Your task to perform on an android device: Clear the cart on ebay.com. Search for "panasonic triple a" on ebay.com, select the first entry, add it to the cart, then select checkout. Image 0: 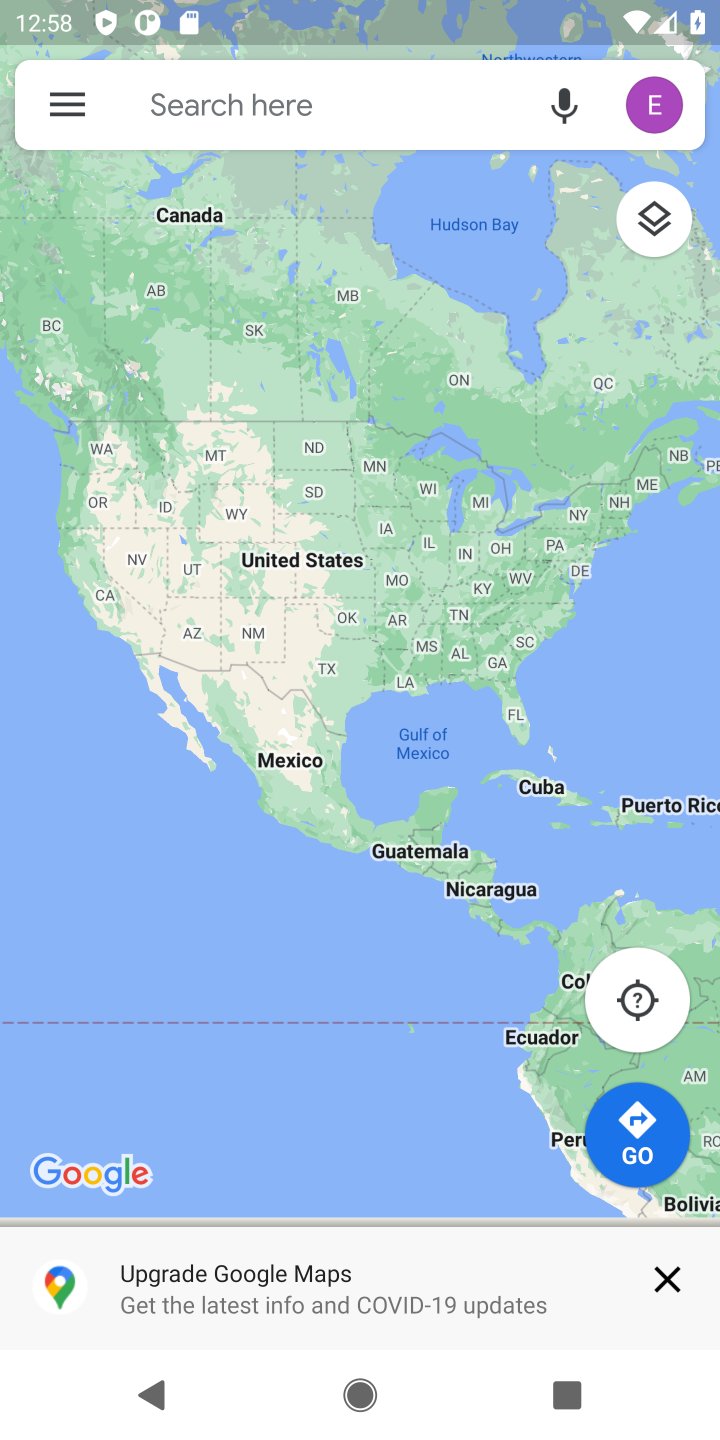
Step 0: press home button
Your task to perform on an android device: Clear the cart on ebay.com. Search for "panasonic triple a" on ebay.com, select the first entry, add it to the cart, then select checkout. Image 1: 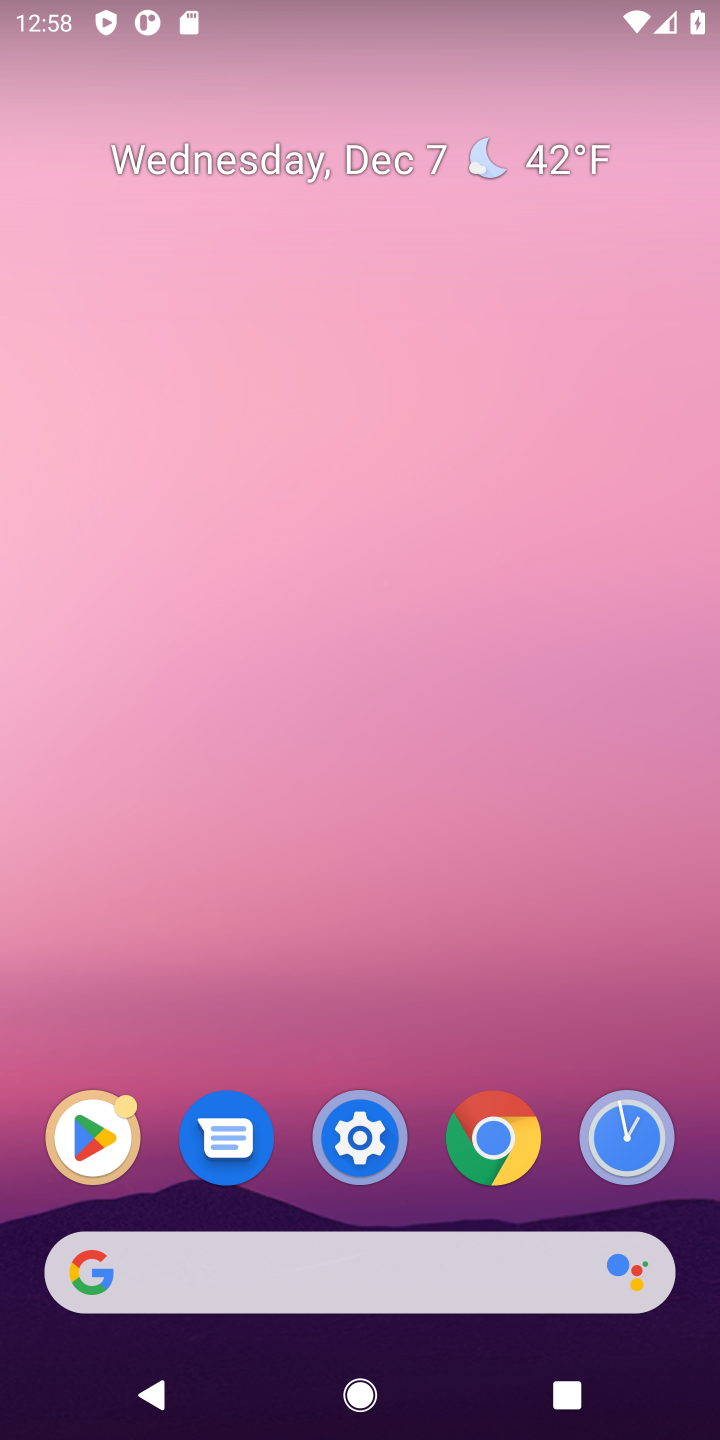
Step 1: click (283, 1278)
Your task to perform on an android device: Clear the cart on ebay.com. Search for "panasonic triple a" on ebay.com, select the first entry, add it to the cart, then select checkout. Image 2: 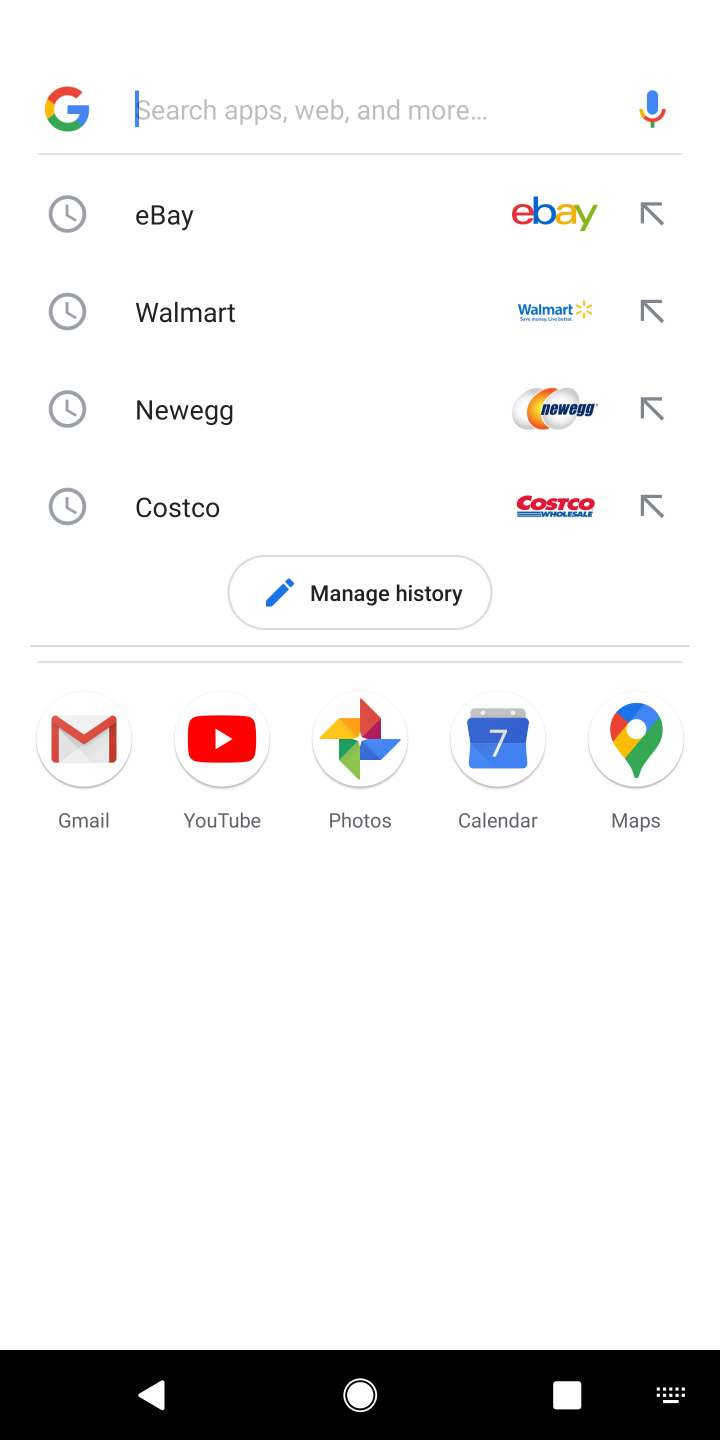
Step 2: click (227, 213)
Your task to perform on an android device: Clear the cart on ebay.com. Search for "panasonic triple a" on ebay.com, select the first entry, add it to the cart, then select checkout. Image 3: 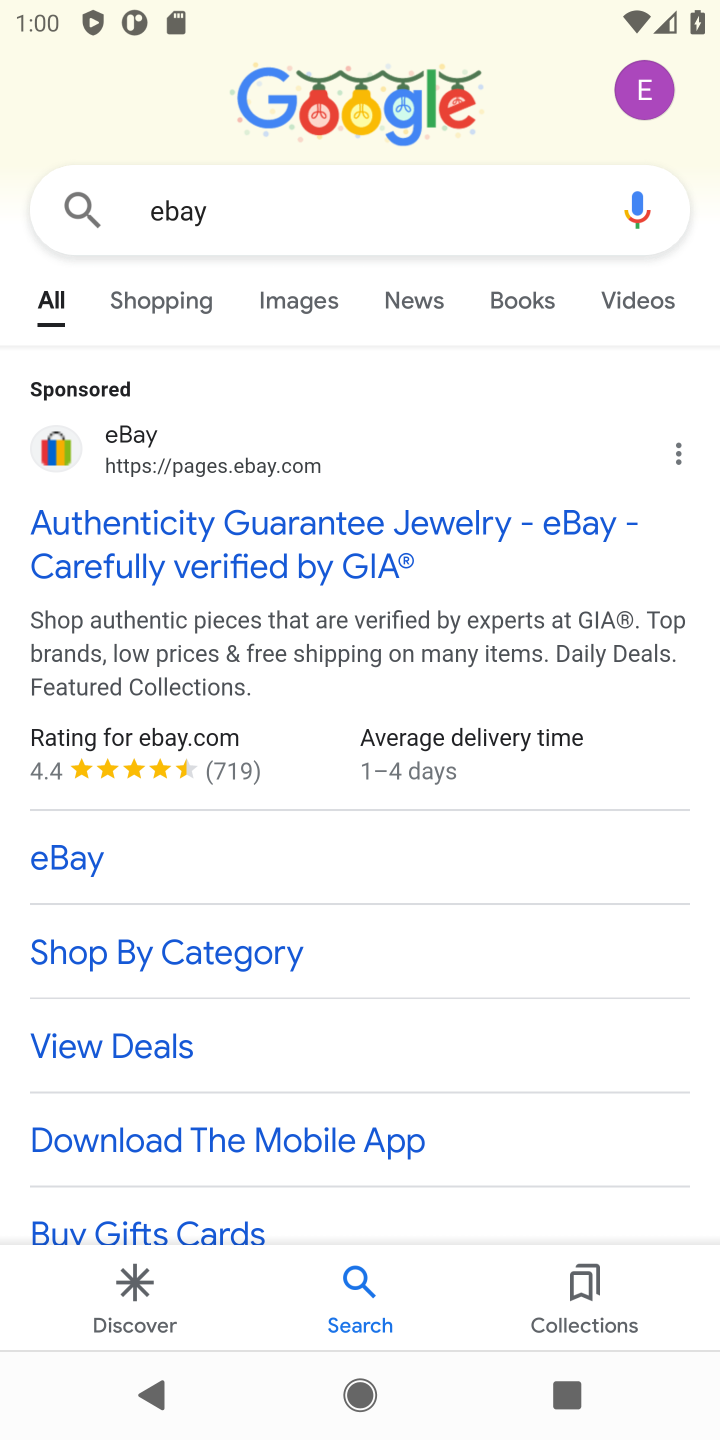
Step 3: click (163, 600)
Your task to perform on an android device: Clear the cart on ebay.com. Search for "panasonic triple a" on ebay.com, select the first entry, add it to the cart, then select checkout. Image 4: 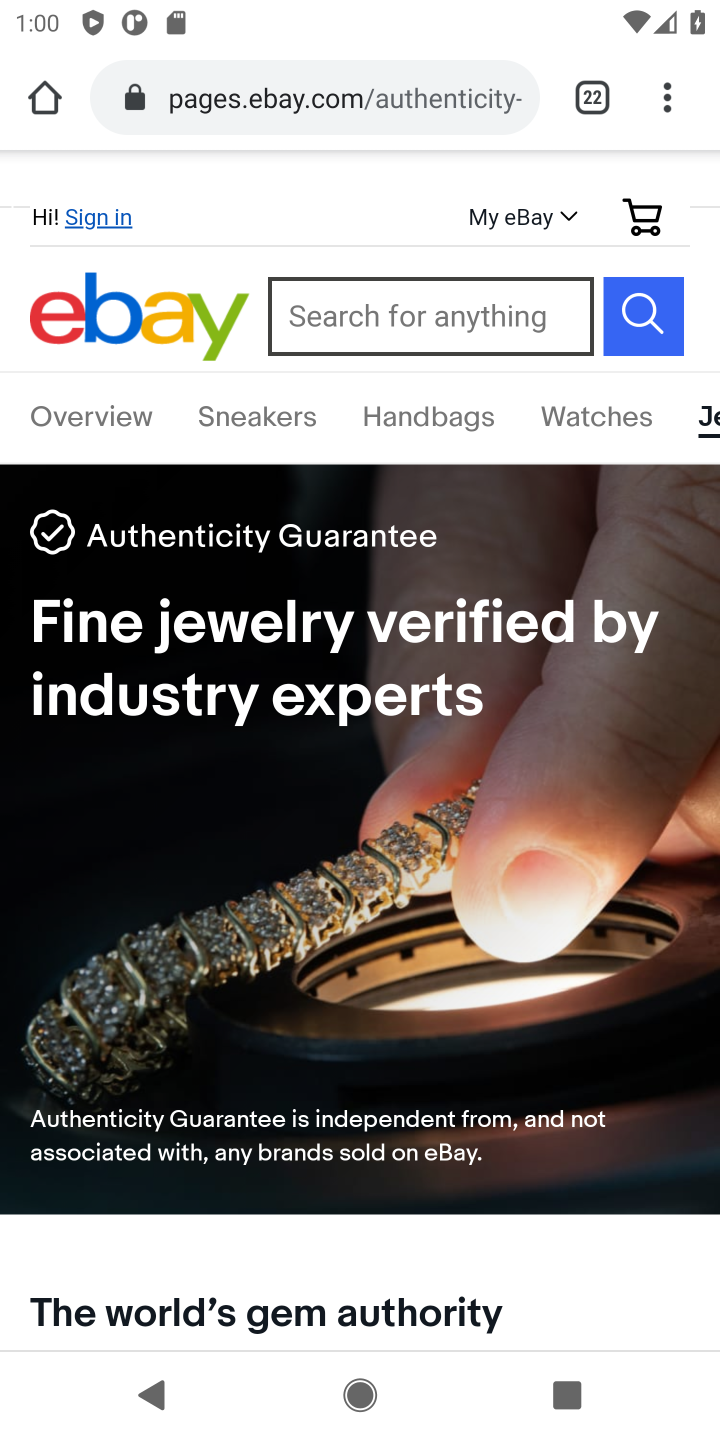
Step 4: click (394, 295)
Your task to perform on an android device: Clear the cart on ebay.com. Search for "panasonic triple a" on ebay.com, select the first entry, add it to the cart, then select checkout. Image 5: 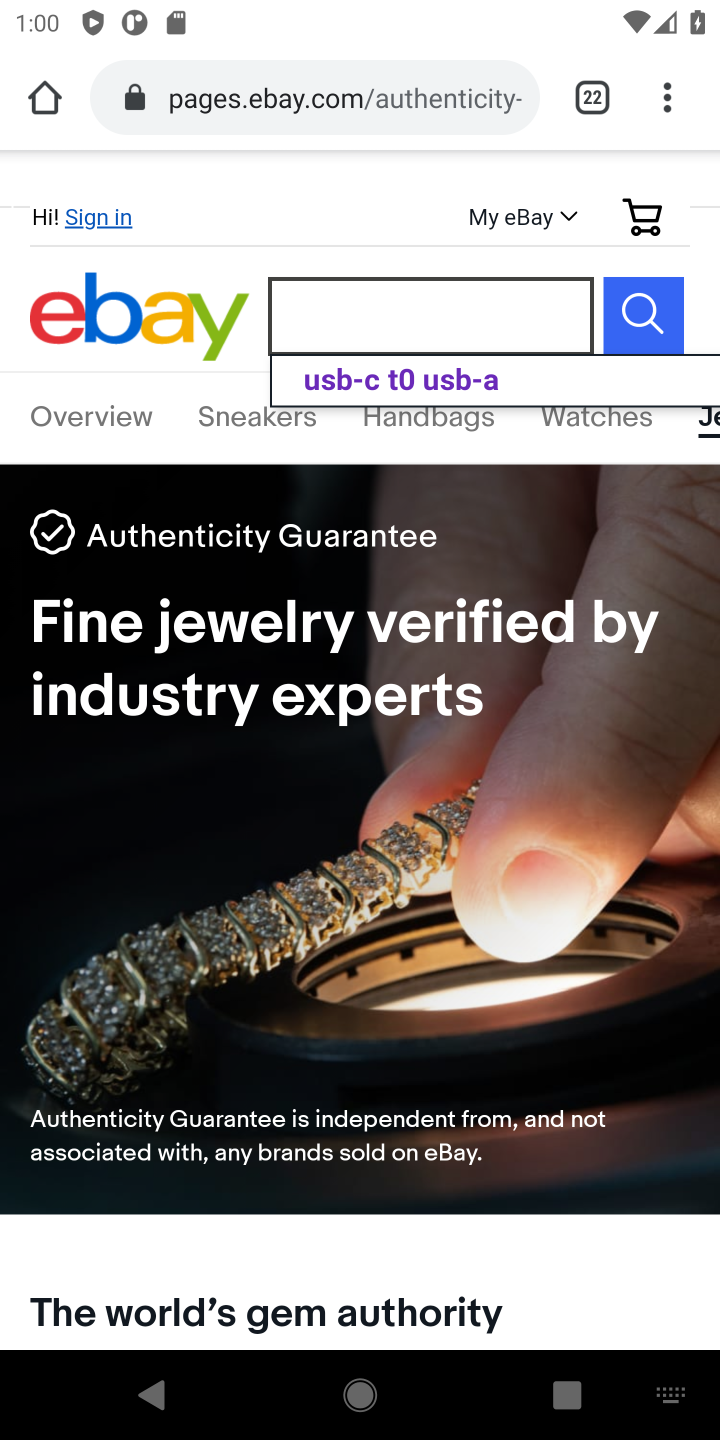
Step 5: type "panasonic"
Your task to perform on an android device: Clear the cart on ebay.com. Search for "panasonic triple a" on ebay.com, select the first entry, add it to the cart, then select checkout. Image 6: 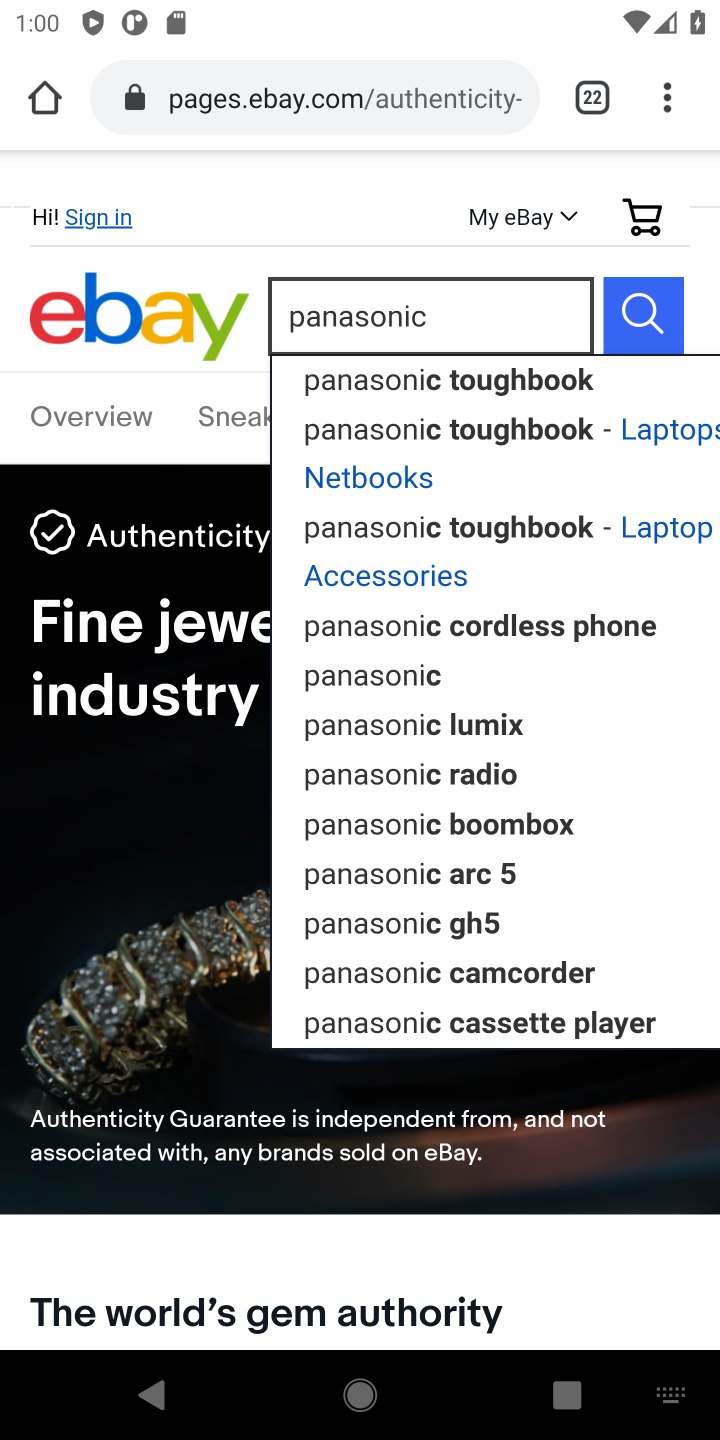
Step 6: click (645, 340)
Your task to perform on an android device: Clear the cart on ebay.com. Search for "panasonic triple a" on ebay.com, select the first entry, add it to the cart, then select checkout. Image 7: 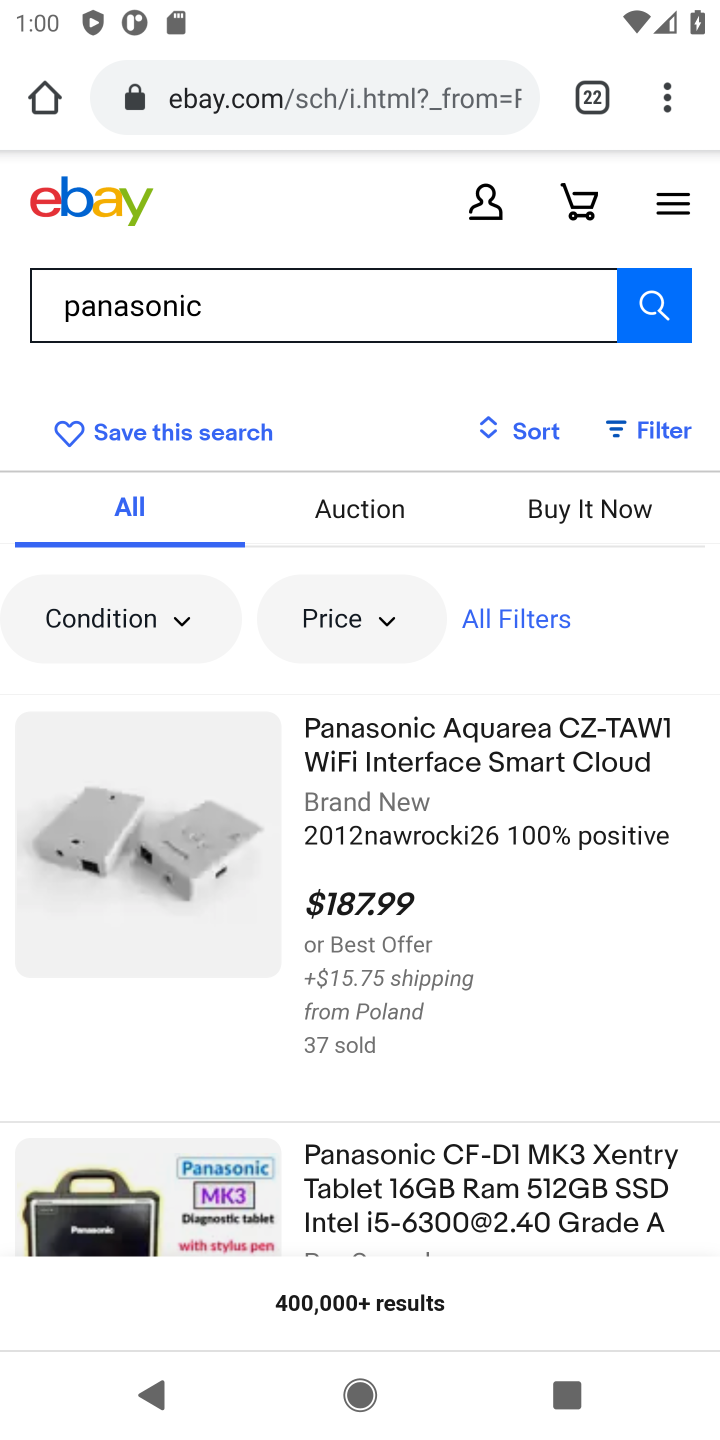
Step 7: task complete